Your task to perform on an android device: turn off wifi Image 0: 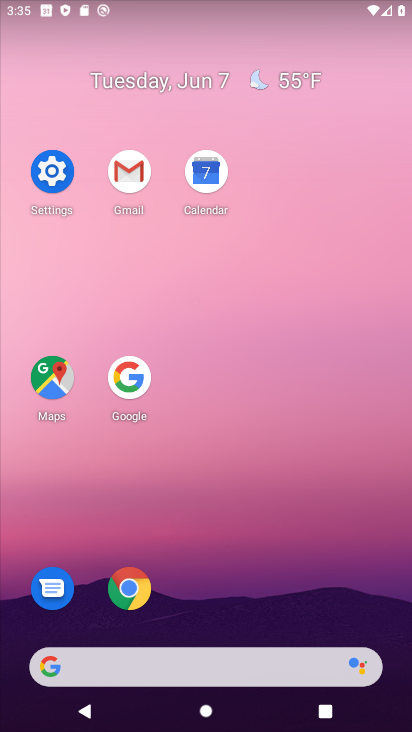
Step 0: click (56, 168)
Your task to perform on an android device: turn off wifi Image 1: 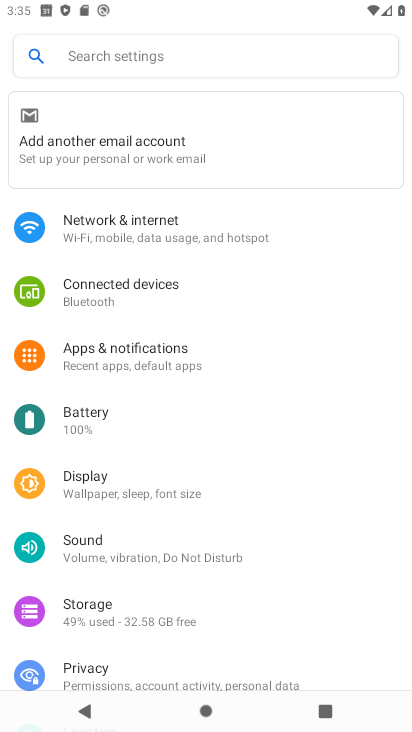
Step 1: click (179, 231)
Your task to perform on an android device: turn off wifi Image 2: 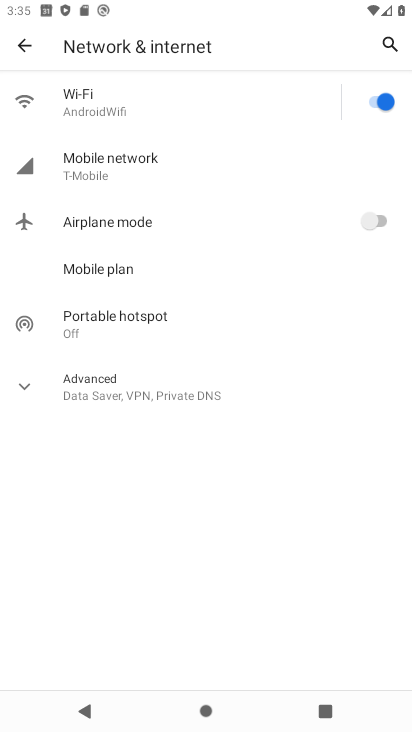
Step 2: click (395, 104)
Your task to perform on an android device: turn off wifi Image 3: 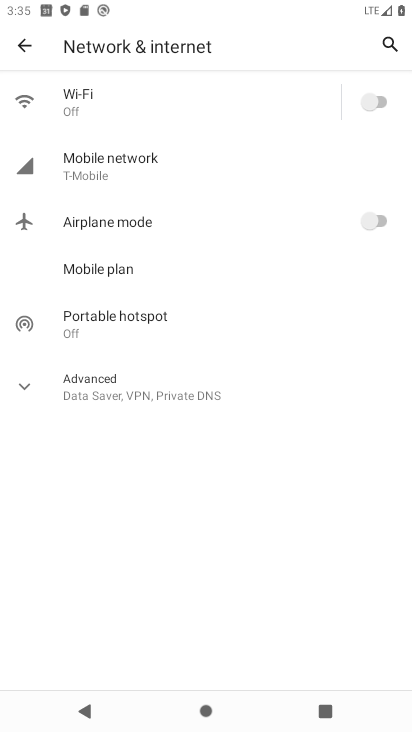
Step 3: task complete